Your task to perform on an android device: set the stopwatch Image 0: 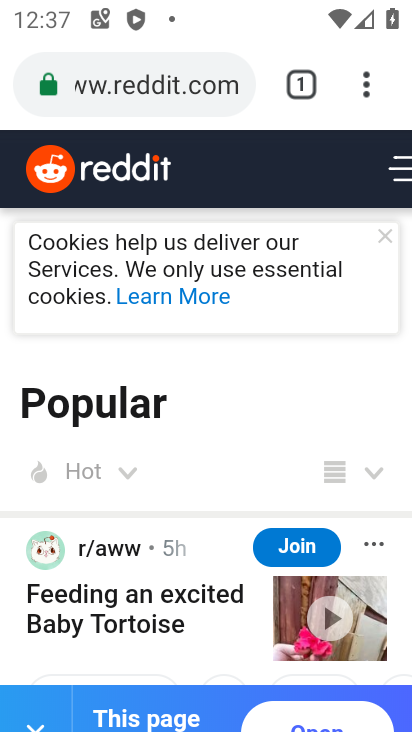
Step 0: press home button
Your task to perform on an android device: set the stopwatch Image 1: 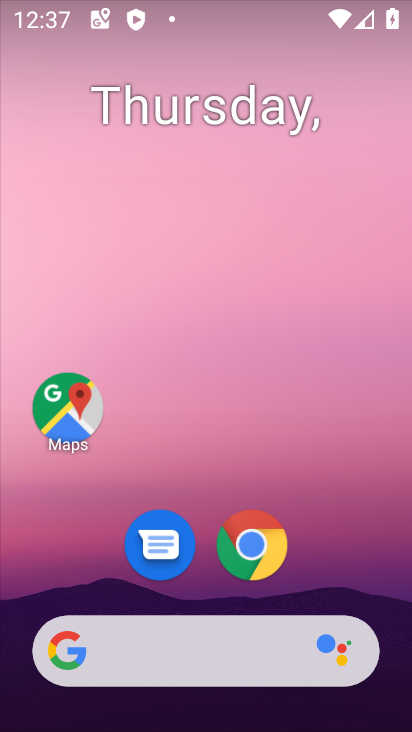
Step 1: drag from (339, 466) to (314, 249)
Your task to perform on an android device: set the stopwatch Image 2: 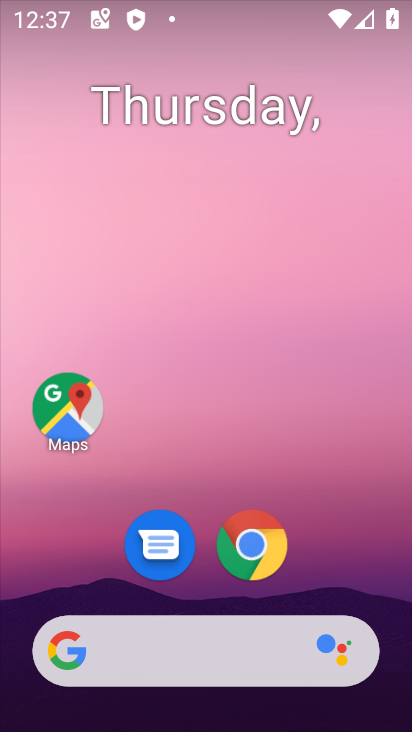
Step 2: drag from (302, 472) to (315, 138)
Your task to perform on an android device: set the stopwatch Image 3: 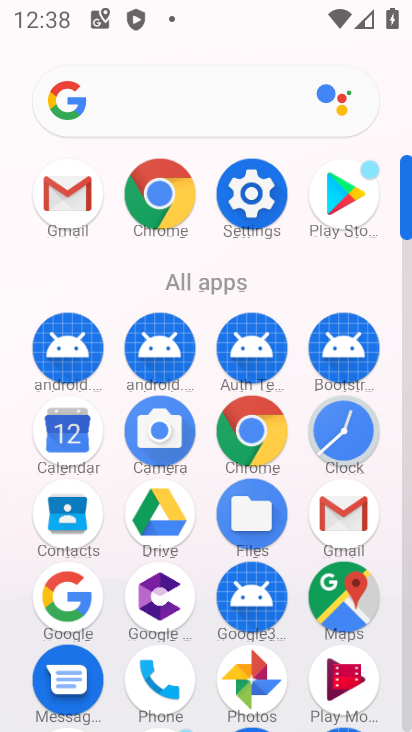
Step 3: click (355, 440)
Your task to perform on an android device: set the stopwatch Image 4: 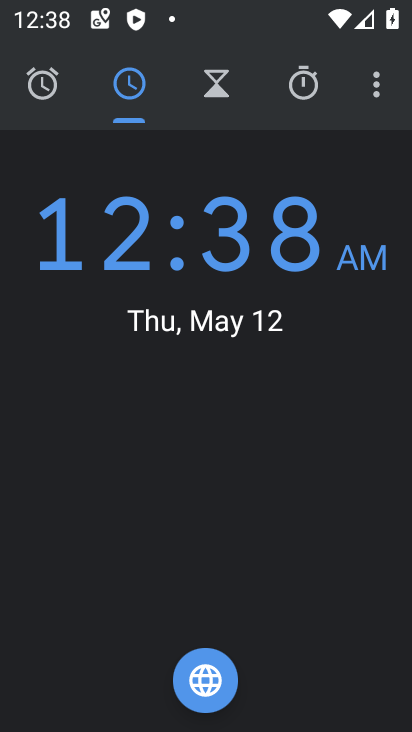
Step 4: click (318, 86)
Your task to perform on an android device: set the stopwatch Image 5: 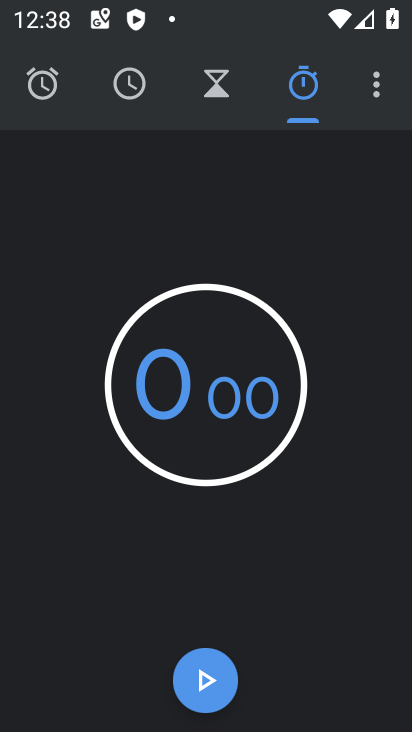
Step 5: click (181, 718)
Your task to perform on an android device: set the stopwatch Image 6: 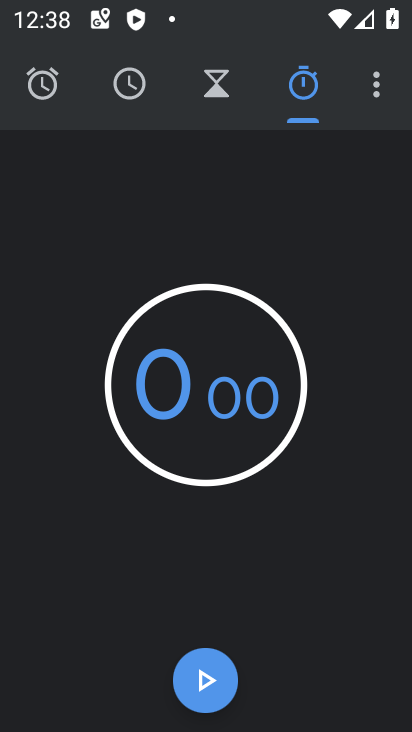
Step 6: click (201, 686)
Your task to perform on an android device: set the stopwatch Image 7: 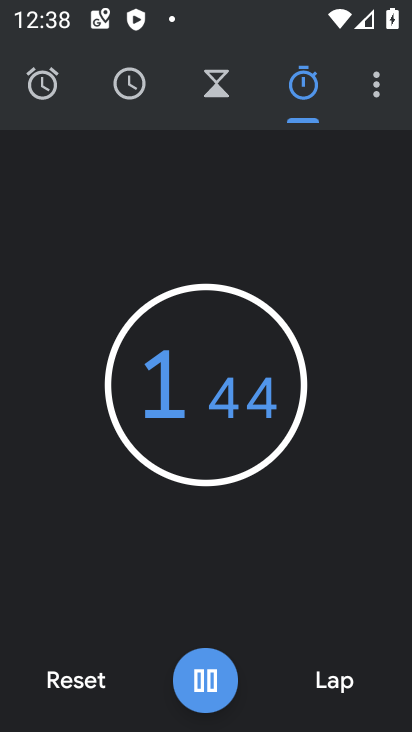
Step 7: task complete